Your task to perform on an android device: change timer sound Image 0: 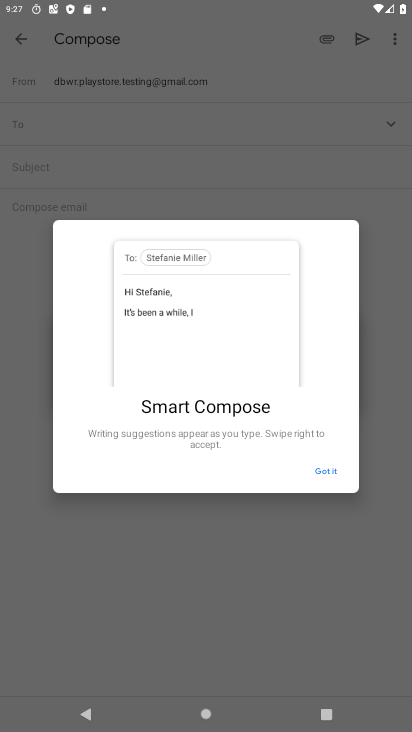
Step 0: press home button
Your task to perform on an android device: change timer sound Image 1: 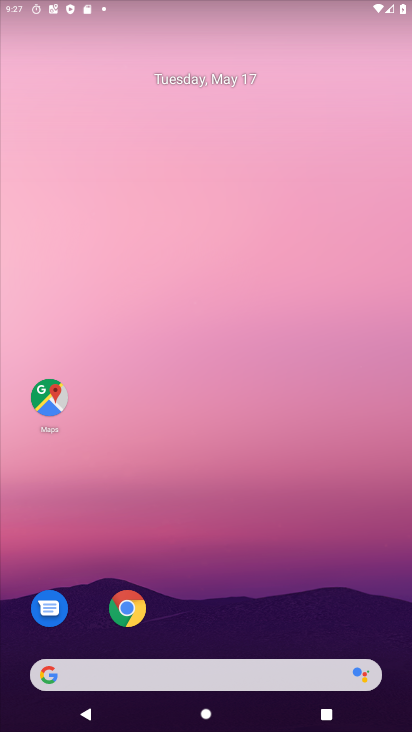
Step 1: drag from (361, 476) to (324, 156)
Your task to perform on an android device: change timer sound Image 2: 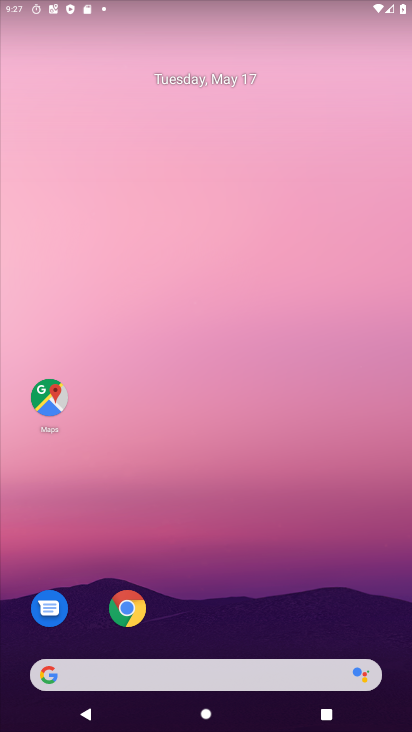
Step 2: drag from (315, 573) to (340, 224)
Your task to perform on an android device: change timer sound Image 3: 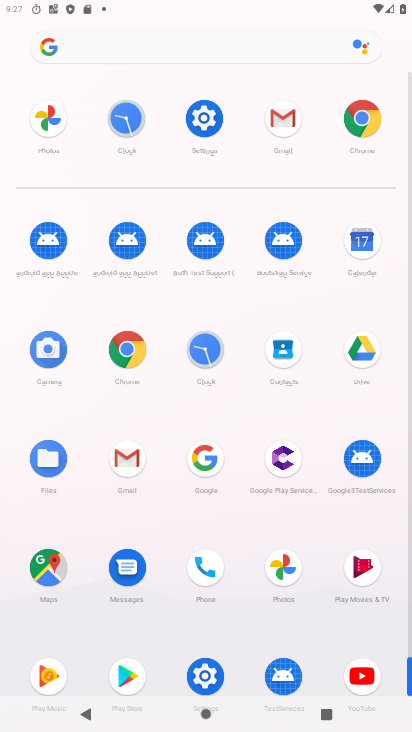
Step 3: click (201, 107)
Your task to perform on an android device: change timer sound Image 4: 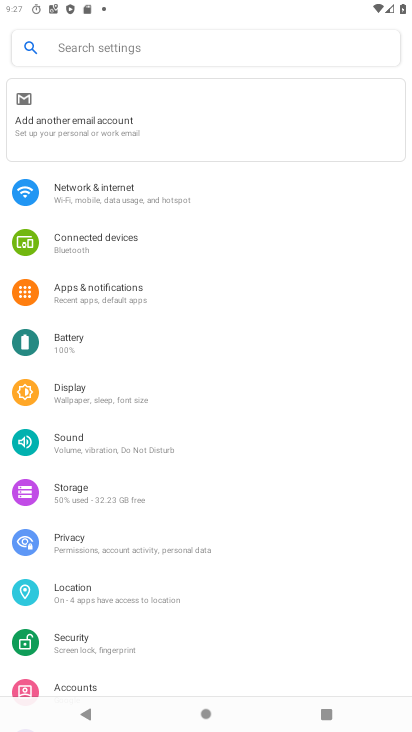
Step 4: click (114, 441)
Your task to perform on an android device: change timer sound Image 5: 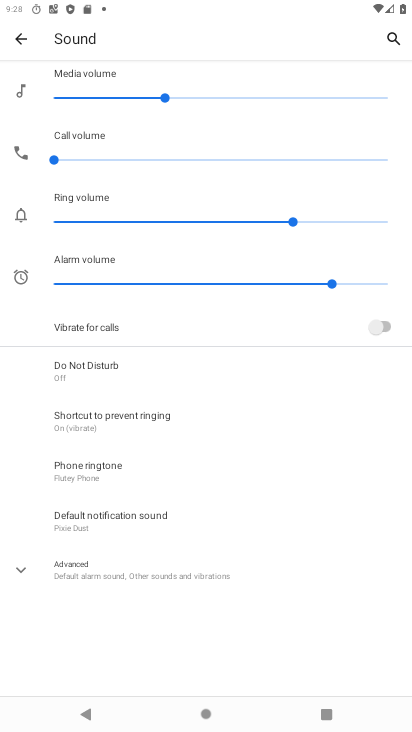
Step 5: task complete